Your task to perform on an android device: Google the capital of Venezuela Image 0: 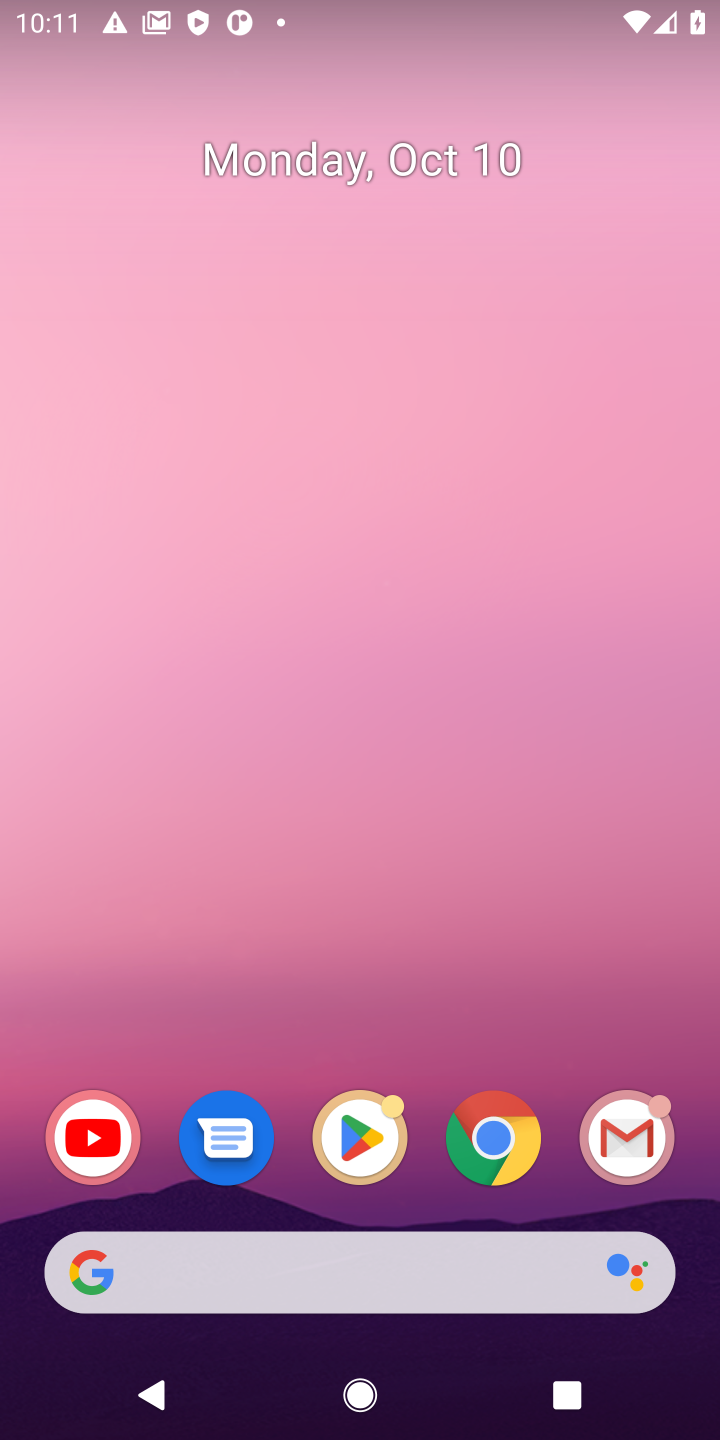
Step 0: click (231, 1265)
Your task to perform on an android device: Google the capital of Venezuela Image 1: 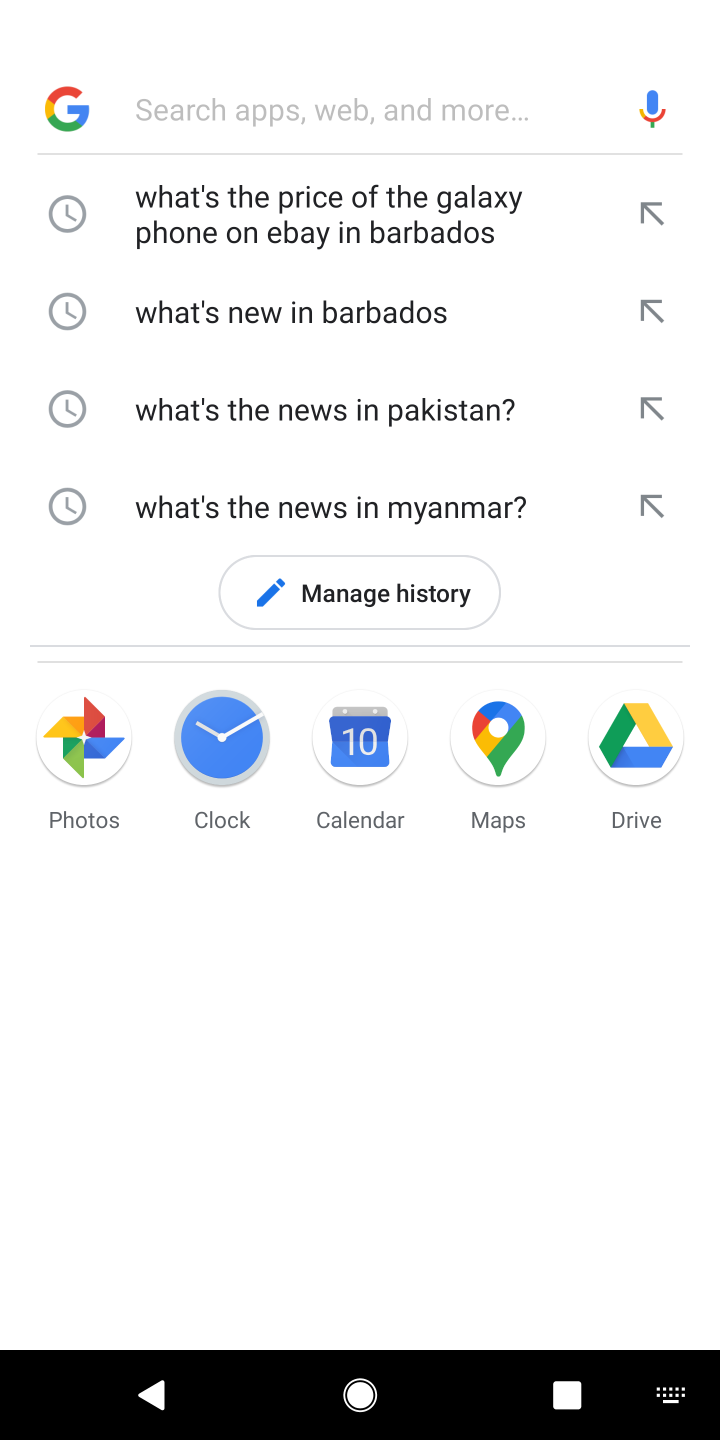
Step 1: type "Google the capital of Venezuela"
Your task to perform on an android device: Google the capital of Venezuela Image 2: 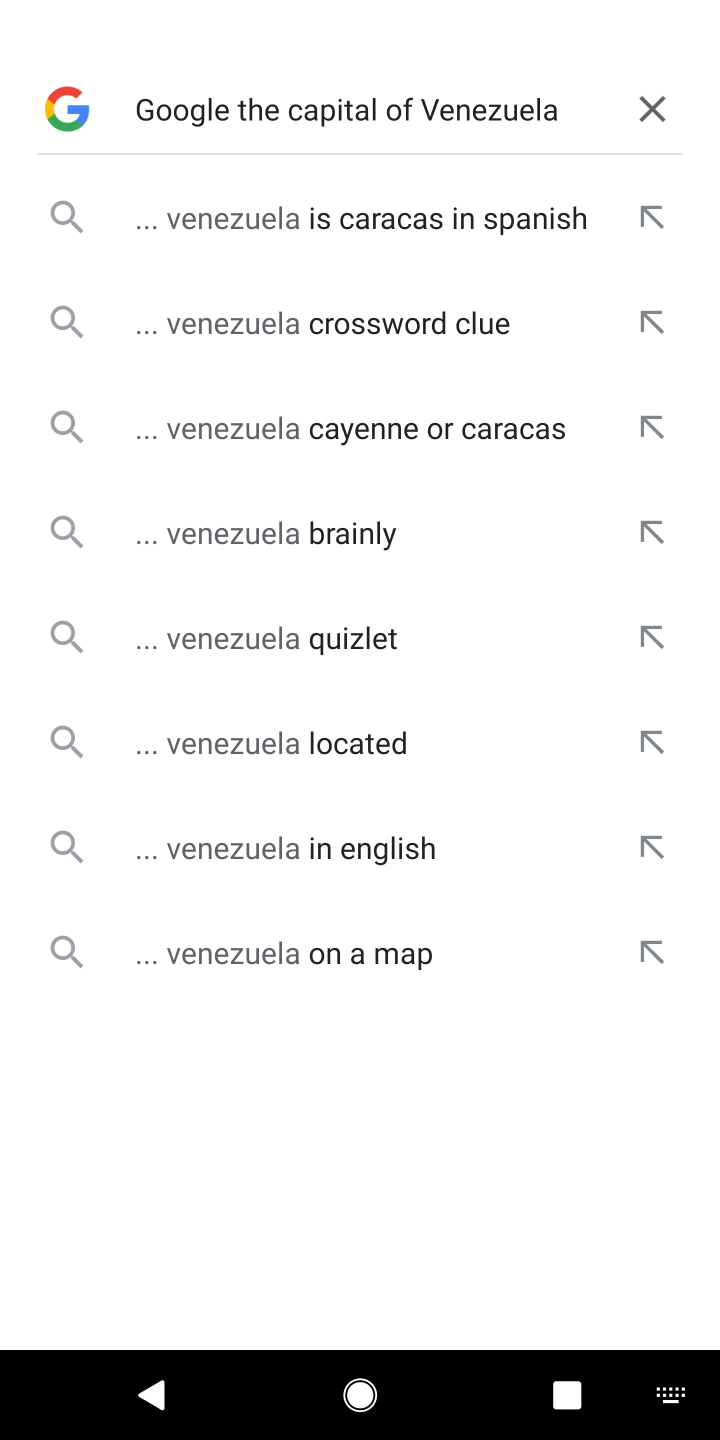
Step 2: click (271, 847)
Your task to perform on an android device: Google the capital of Venezuela Image 3: 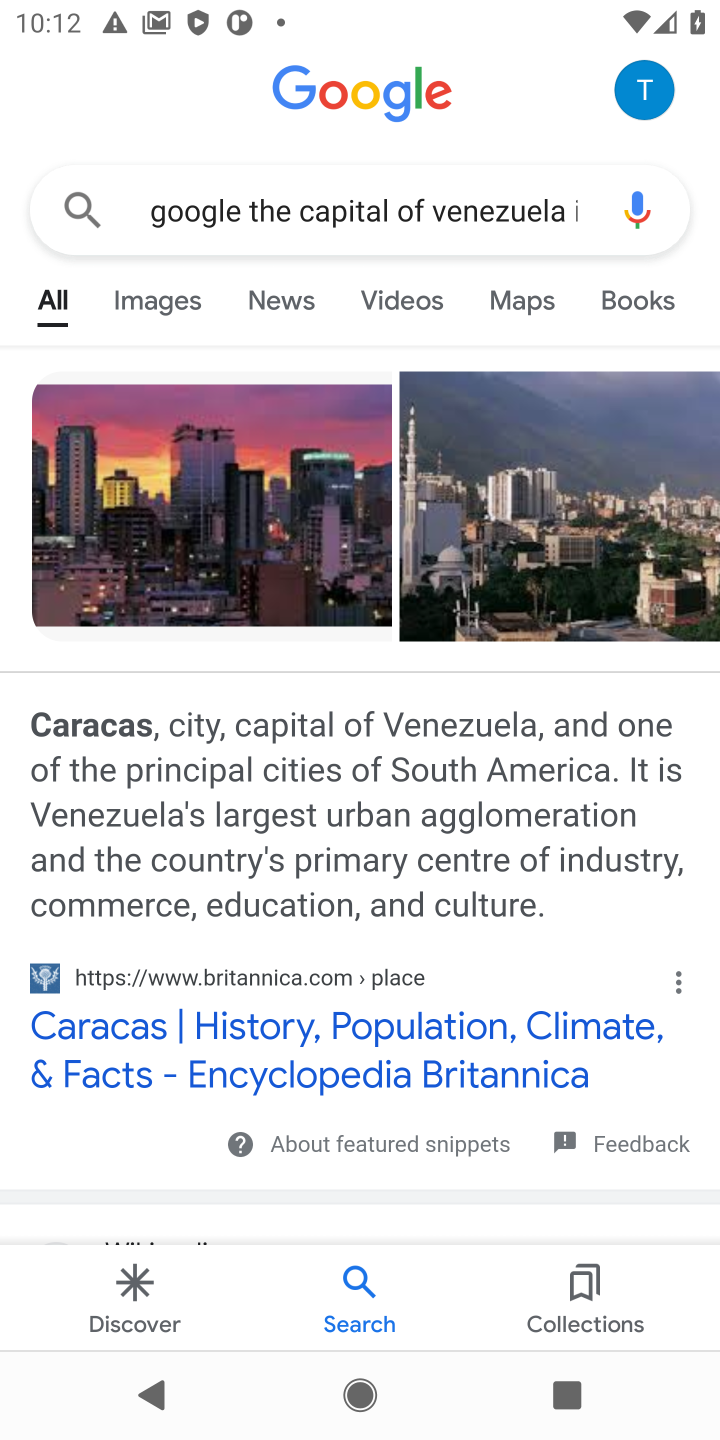
Step 3: task complete